Your task to perform on an android device: What's the weather going to be tomorrow? Image 0: 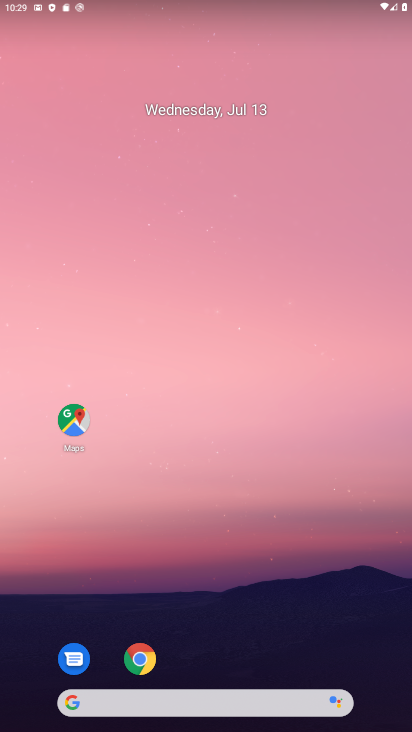
Step 0: click (214, 689)
Your task to perform on an android device: What's the weather going to be tomorrow? Image 1: 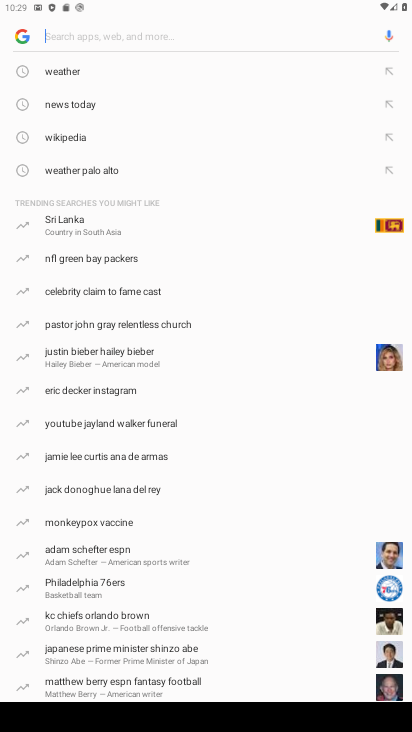
Step 1: type "weather for weekend"
Your task to perform on an android device: What's the weather going to be tomorrow? Image 2: 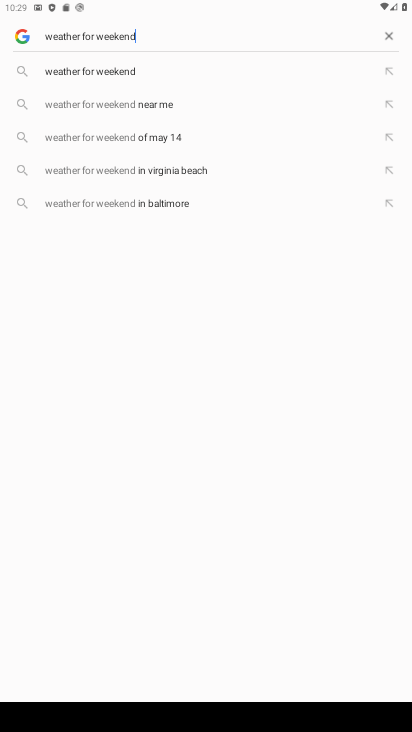
Step 2: click (123, 70)
Your task to perform on an android device: What's the weather going to be tomorrow? Image 3: 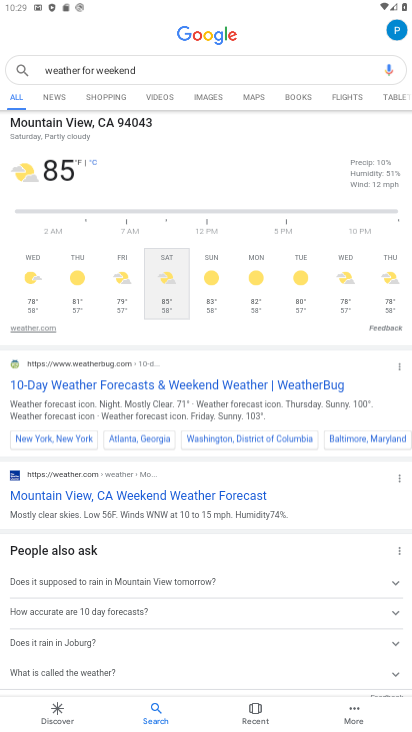
Step 3: task complete